Your task to perform on an android device: turn on notifications settings in the gmail app Image 0: 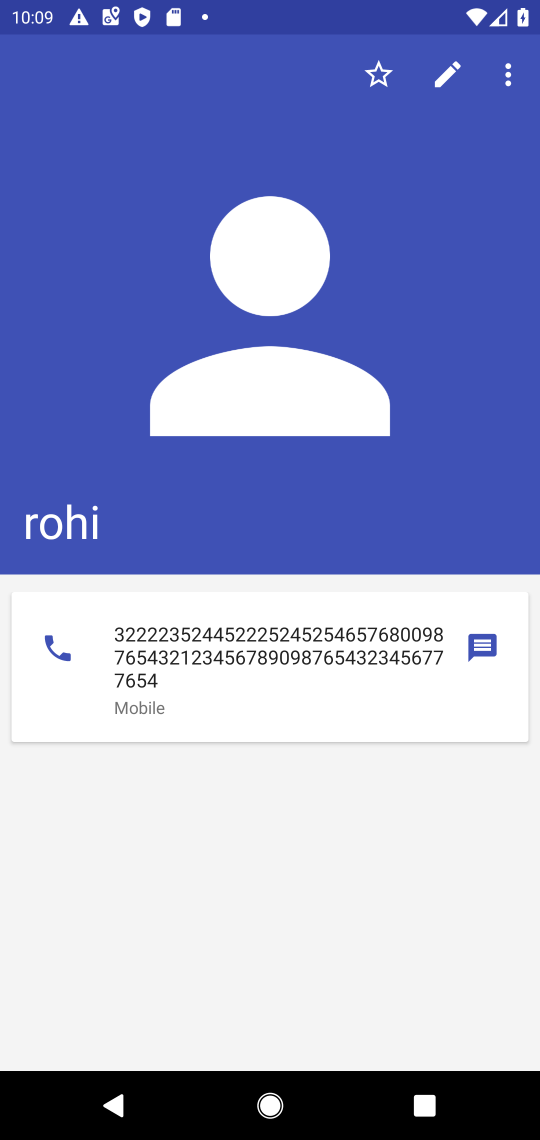
Step 0: press home button
Your task to perform on an android device: turn on notifications settings in the gmail app Image 1: 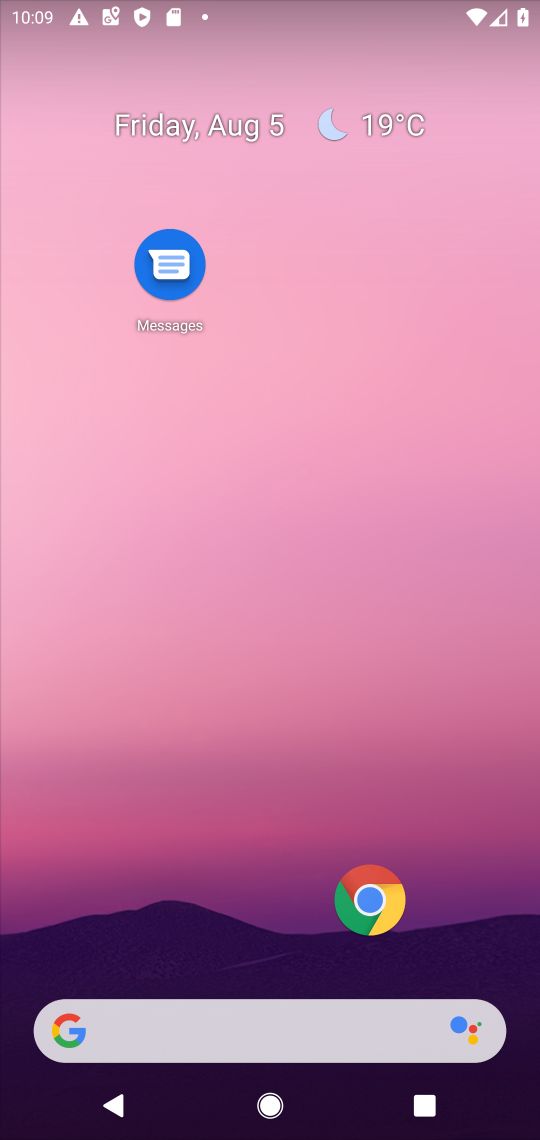
Step 1: drag from (267, 915) to (287, 174)
Your task to perform on an android device: turn on notifications settings in the gmail app Image 2: 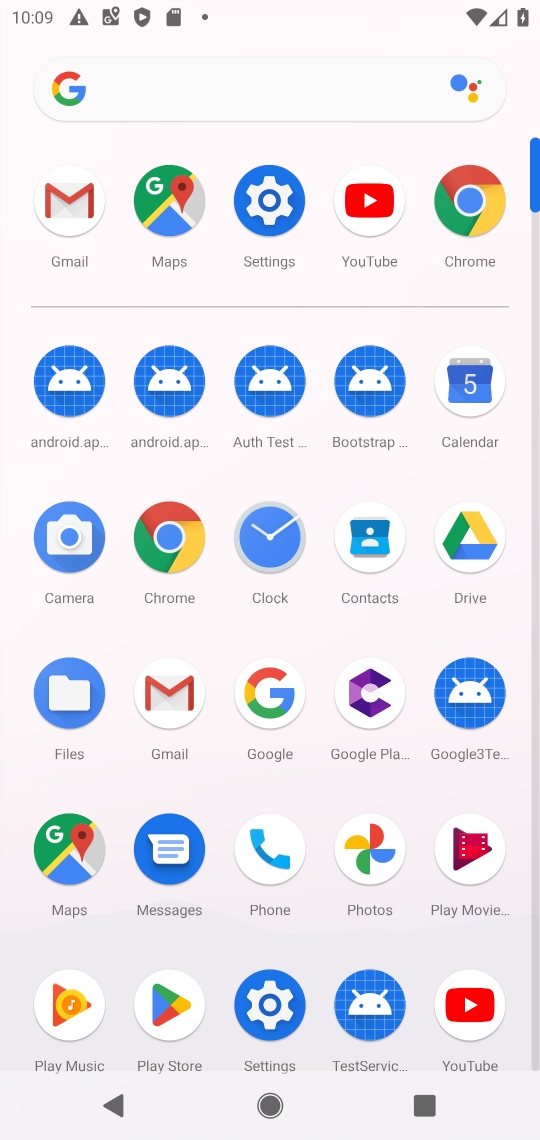
Step 2: click (150, 687)
Your task to perform on an android device: turn on notifications settings in the gmail app Image 3: 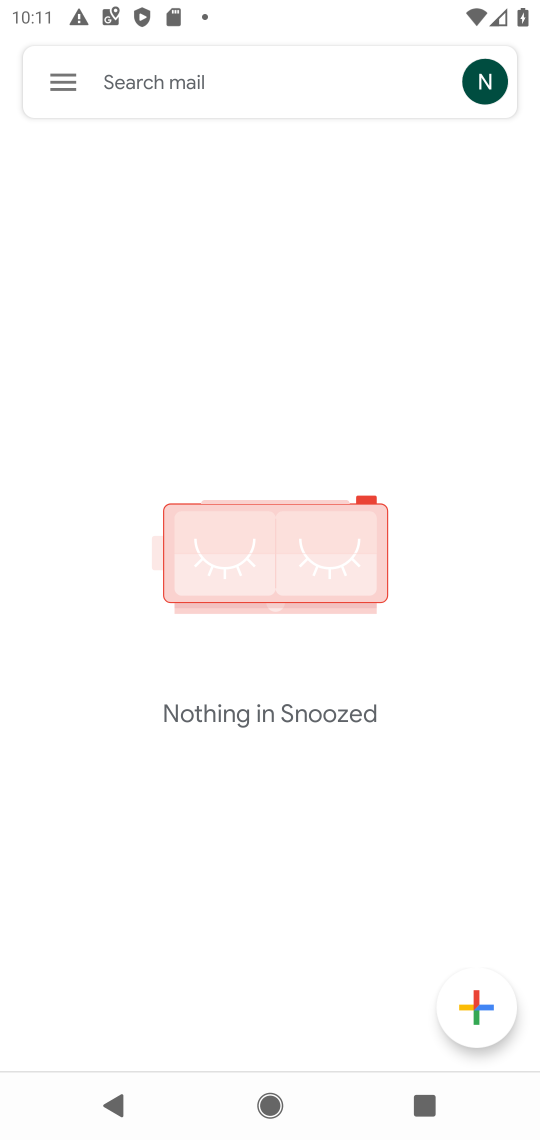
Step 3: press home button
Your task to perform on an android device: turn on notifications settings in the gmail app Image 4: 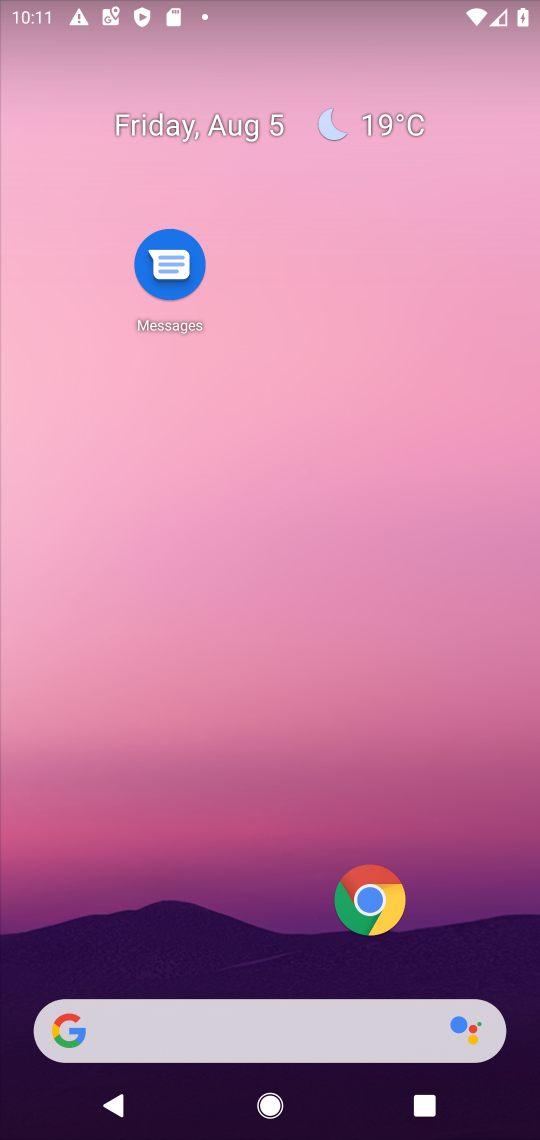
Step 4: drag from (253, 896) to (452, 151)
Your task to perform on an android device: turn on notifications settings in the gmail app Image 5: 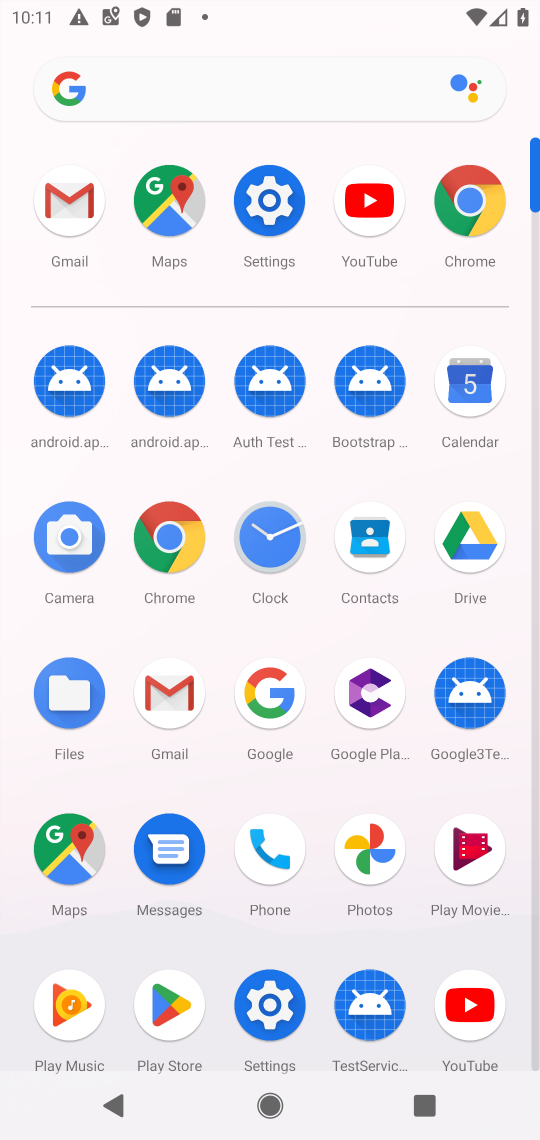
Step 5: click (59, 184)
Your task to perform on an android device: turn on notifications settings in the gmail app Image 6: 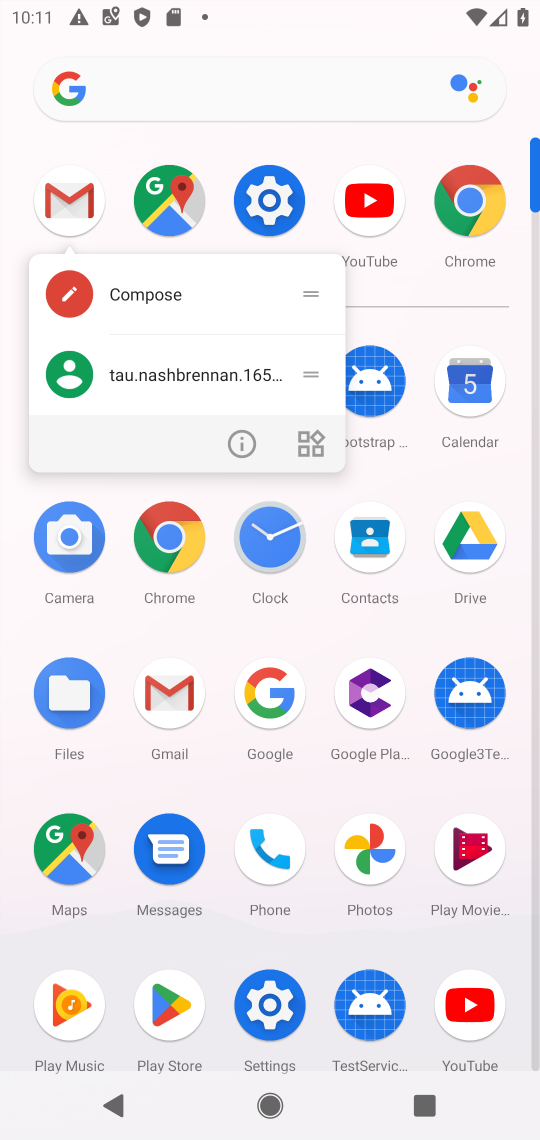
Step 6: click (237, 444)
Your task to perform on an android device: turn on notifications settings in the gmail app Image 7: 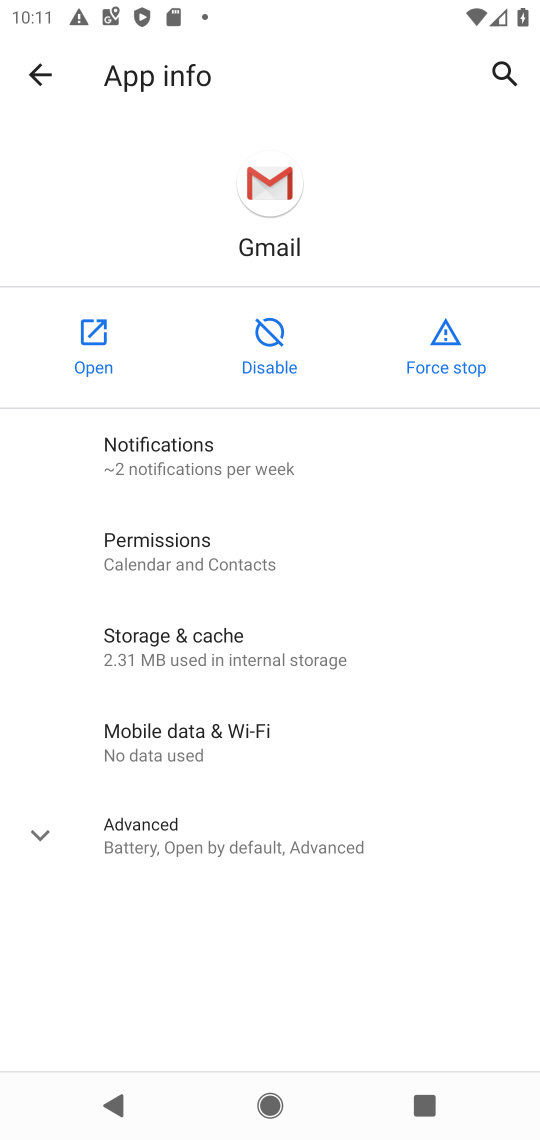
Step 7: click (323, 476)
Your task to perform on an android device: turn on notifications settings in the gmail app Image 8: 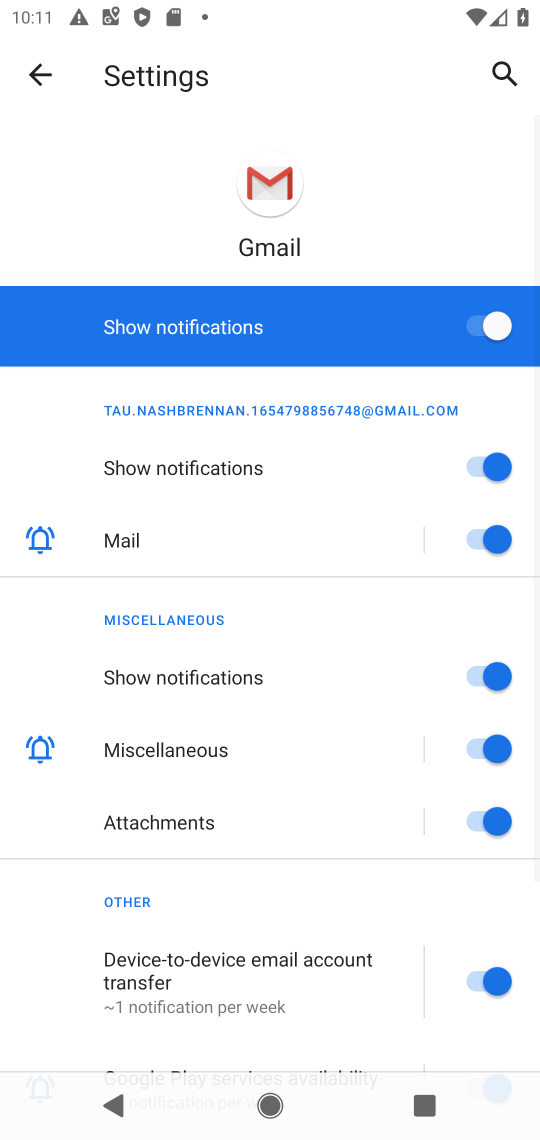
Step 8: task complete